Your task to perform on an android device: turn on translation in the chrome app Image 0: 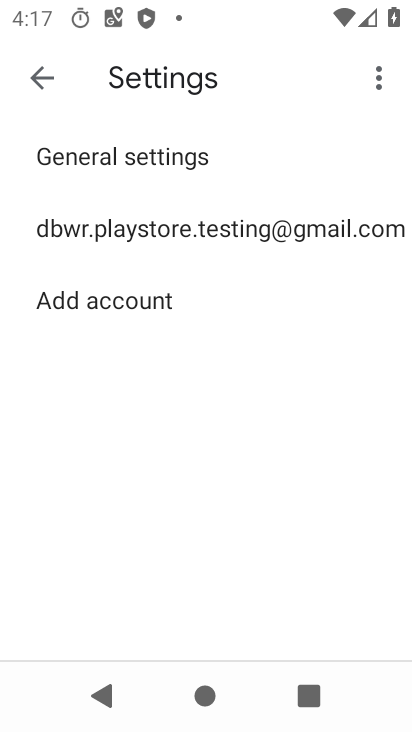
Step 0: press home button
Your task to perform on an android device: turn on translation in the chrome app Image 1: 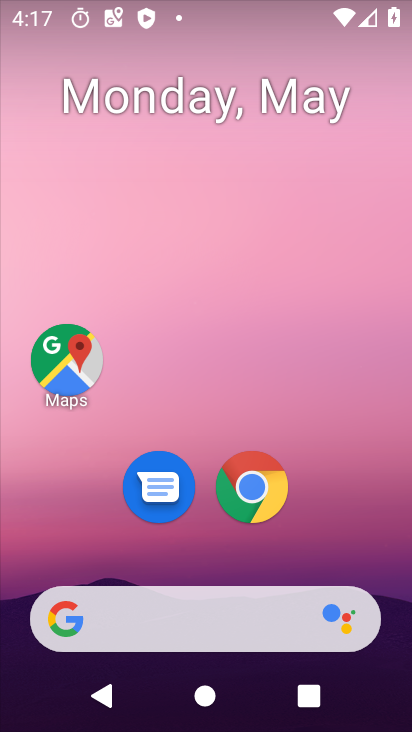
Step 1: click (242, 493)
Your task to perform on an android device: turn on translation in the chrome app Image 2: 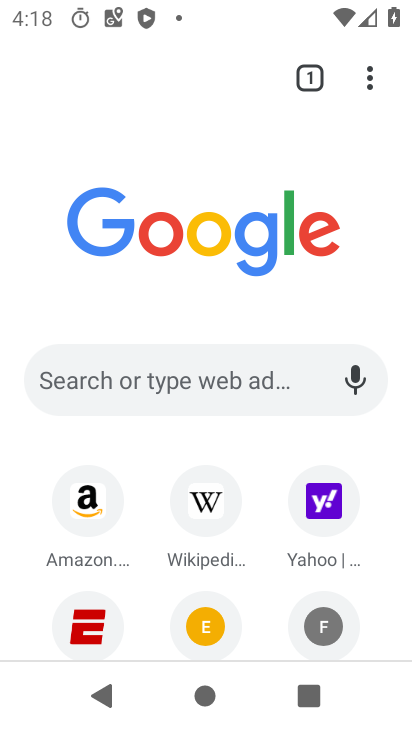
Step 2: click (372, 67)
Your task to perform on an android device: turn on translation in the chrome app Image 3: 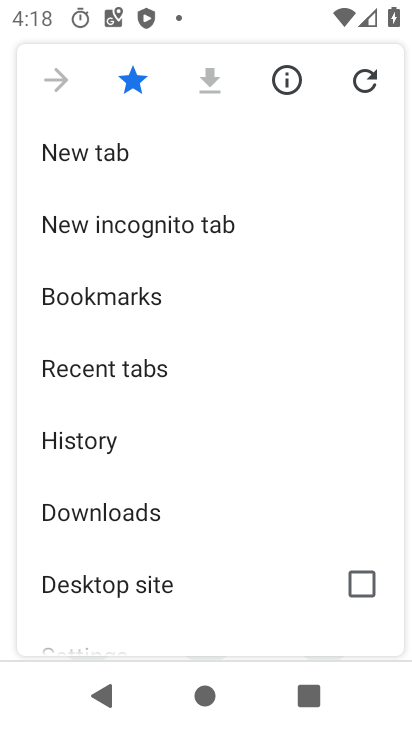
Step 3: drag from (179, 593) to (175, 259)
Your task to perform on an android device: turn on translation in the chrome app Image 4: 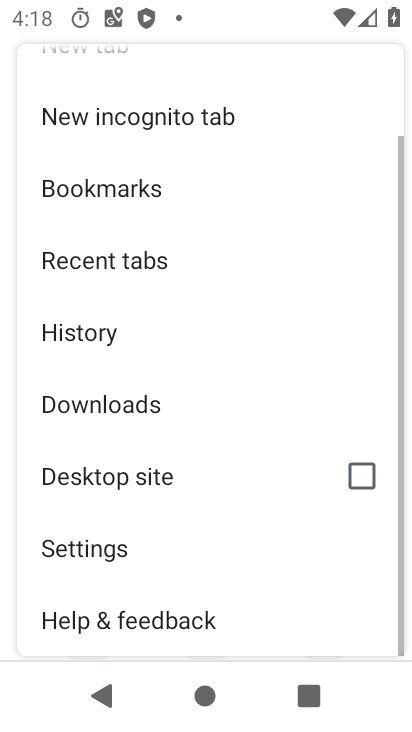
Step 4: click (110, 554)
Your task to perform on an android device: turn on translation in the chrome app Image 5: 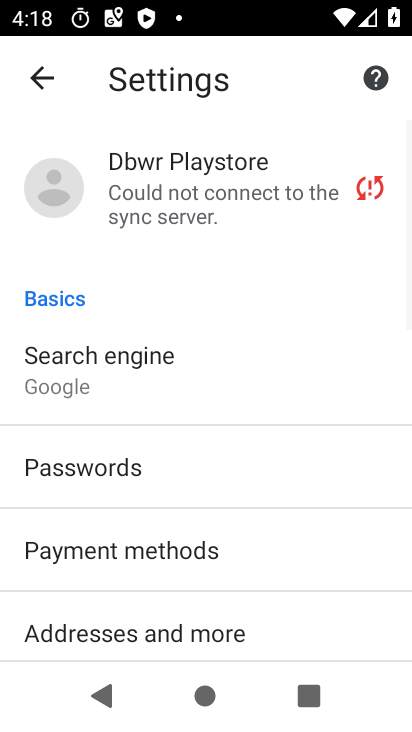
Step 5: drag from (158, 638) to (172, 323)
Your task to perform on an android device: turn on translation in the chrome app Image 6: 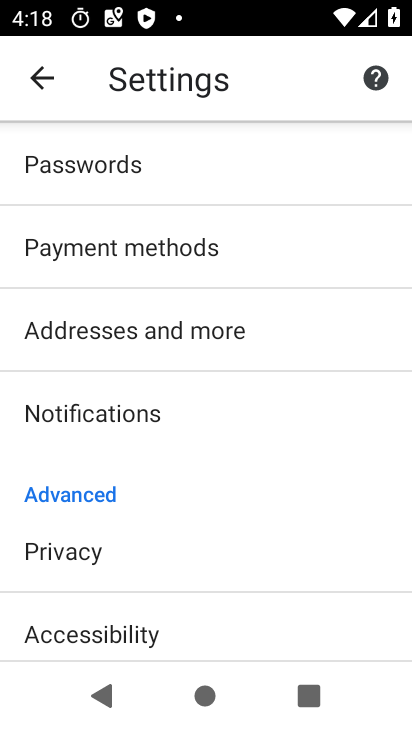
Step 6: drag from (104, 639) to (104, 330)
Your task to perform on an android device: turn on translation in the chrome app Image 7: 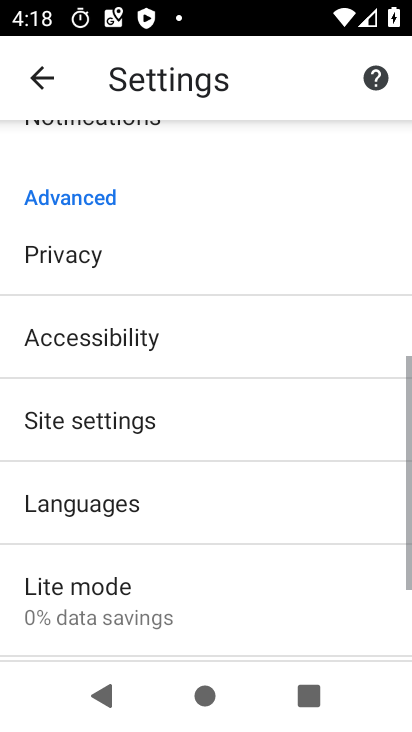
Step 7: click (108, 503)
Your task to perform on an android device: turn on translation in the chrome app Image 8: 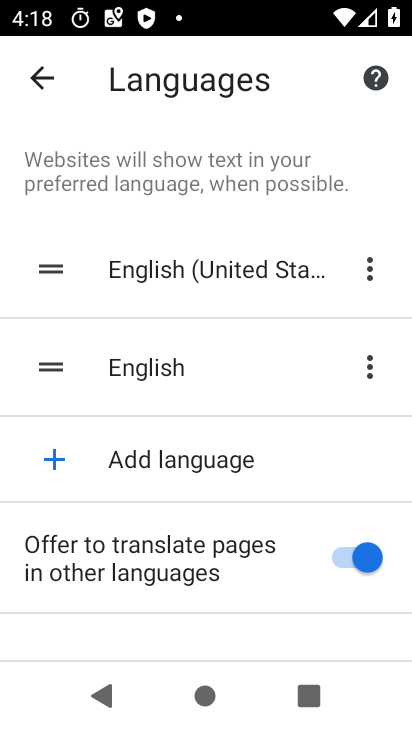
Step 8: task complete